Your task to perform on an android device: turn off picture-in-picture Image 0: 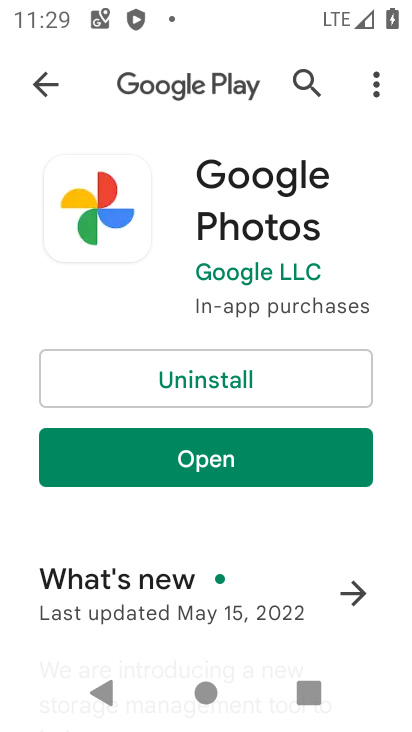
Step 0: press home button
Your task to perform on an android device: turn off picture-in-picture Image 1: 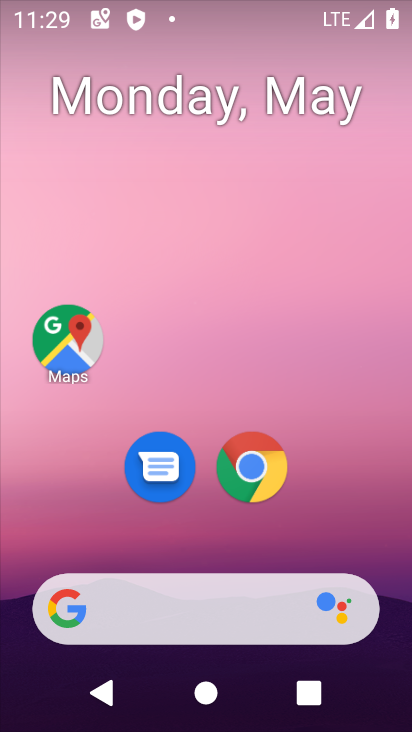
Step 1: click (244, 457)
Your task to perform on an android device: turn off picture-in-picture Image 2: 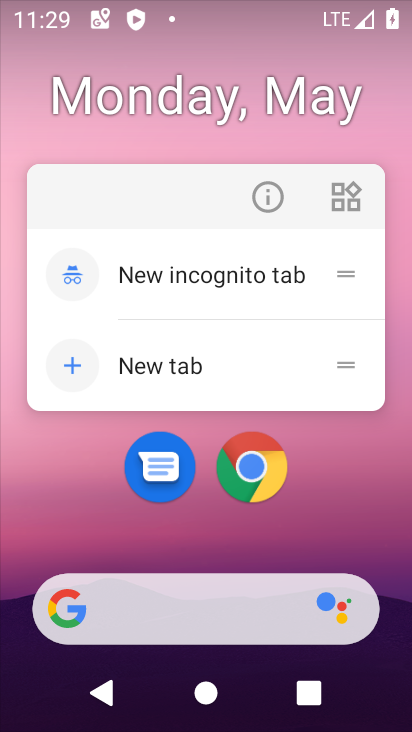
Step 2: click (263, 195)
Your task to perform on an android device: turn off picture-in-picture Image 3: 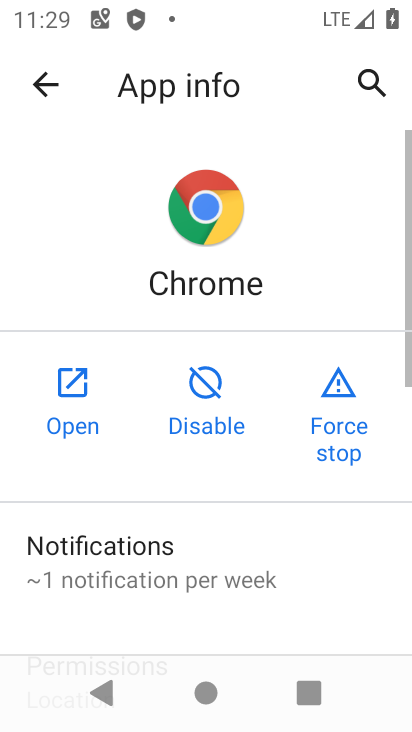
Step 3: drag from (250, 626) to (277, 53)
Your task to perform on an android device: turn off picture-in-picture Image 4: 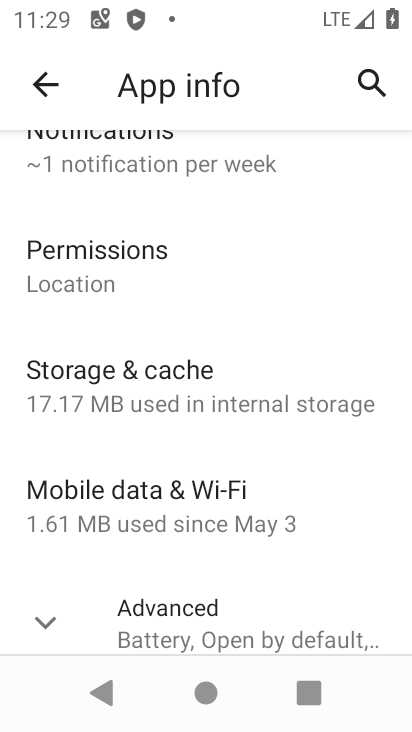
Step 4: click (73, 620)
Your task to perform on an android device: turn off picture-in-picture Image 5: 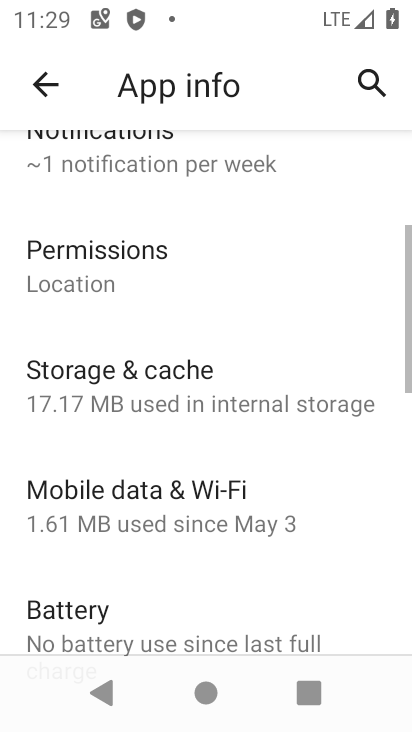
Step 5: drag from (356, 613) to (340, 47)
Your task to perform on an android device: turn off picture-in-picture Image 6: 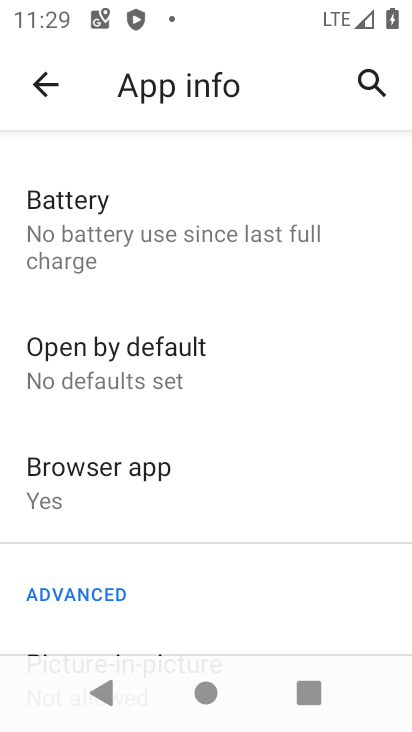
Step 6: drag from (233, 617) to (247, 253)
Your task to perform on an android device: turn off picture-in-picture Image 7: 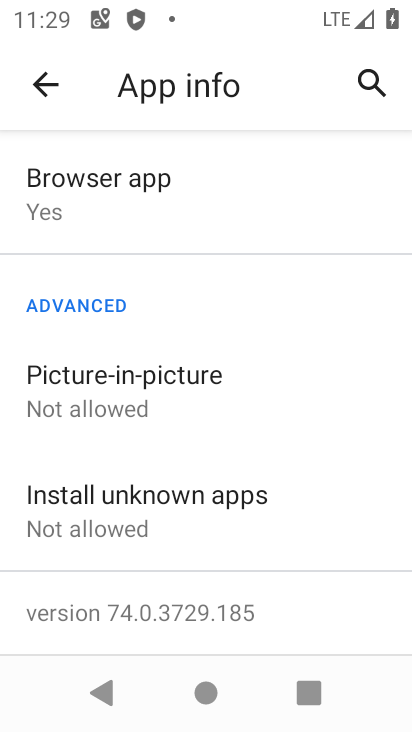
Step 7: click (84, 405)
Your task to perform on an android device: turn off picture-in-picture Image 8: 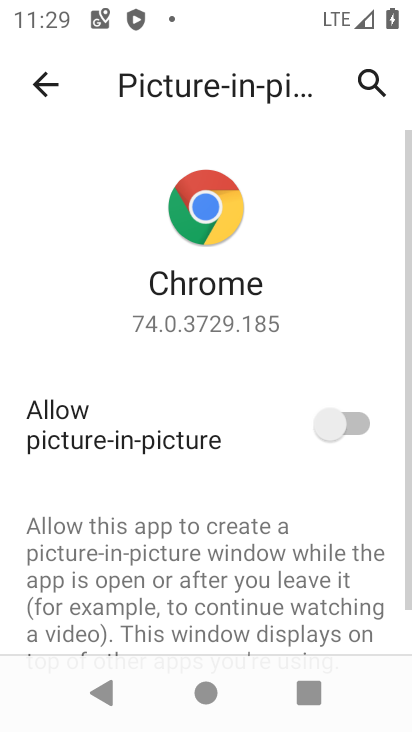
Step 8: task complete